Your task to perform on an android device: move a message to another label in the gmail app Image 0: 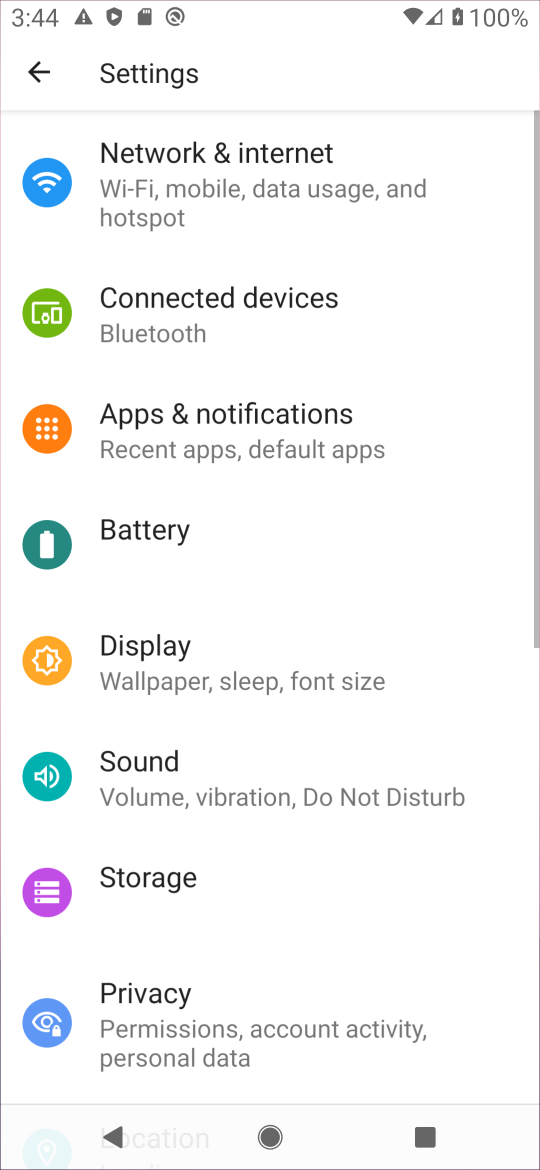
Step 0: press back button
Your task to perform on an android device: move a message to another label in the gmail app Image 1: 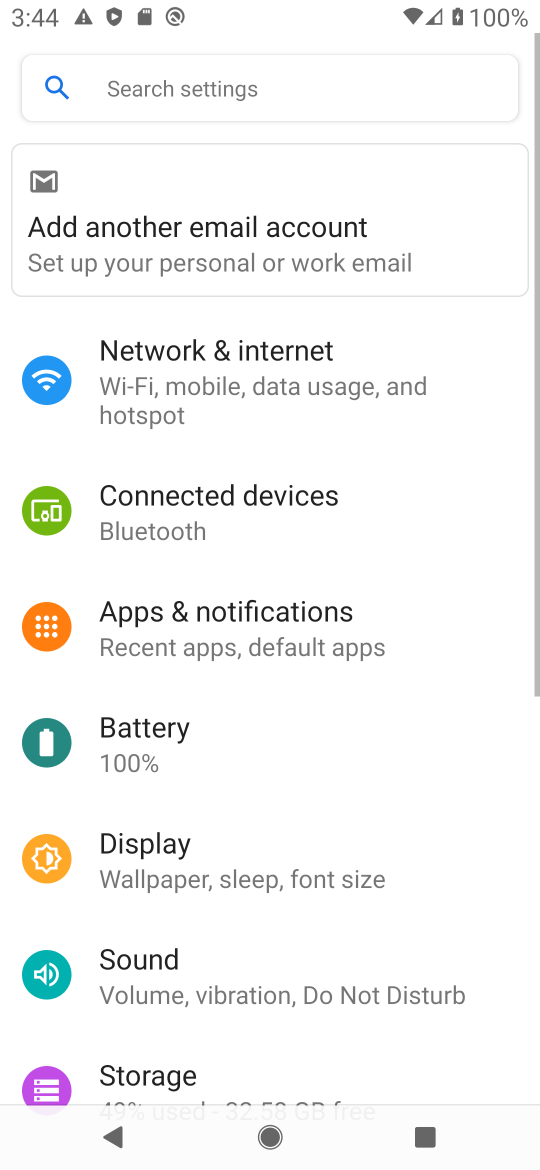
Step 1: press back button
Your task to perform on an android device: move a message to another label in the gmail app Image 2: 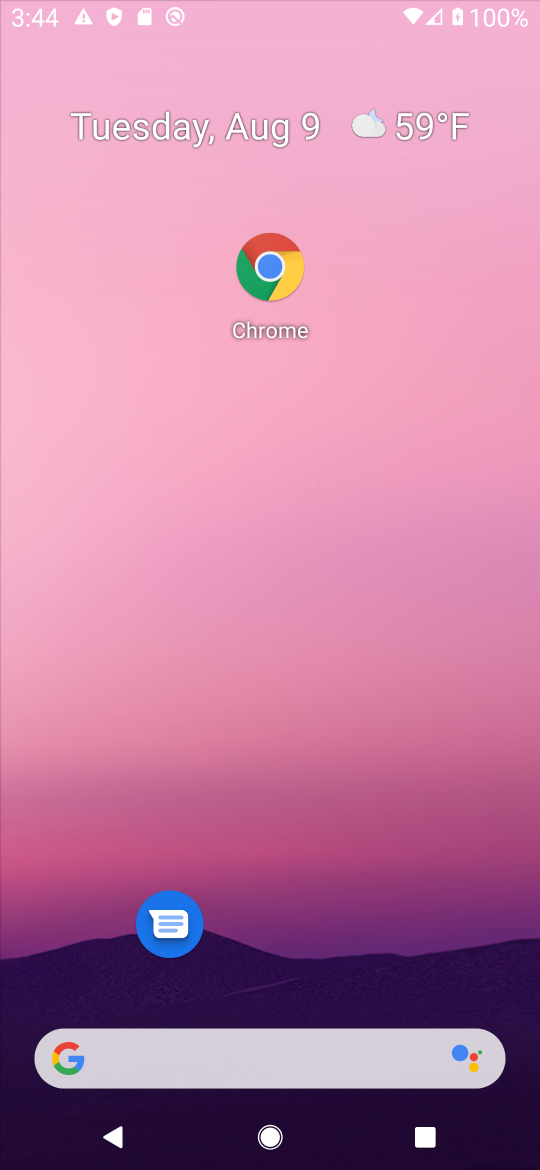
Step 2: press home button
Your task to perform on an android device: move a message to another label in the gmail app Image 3: 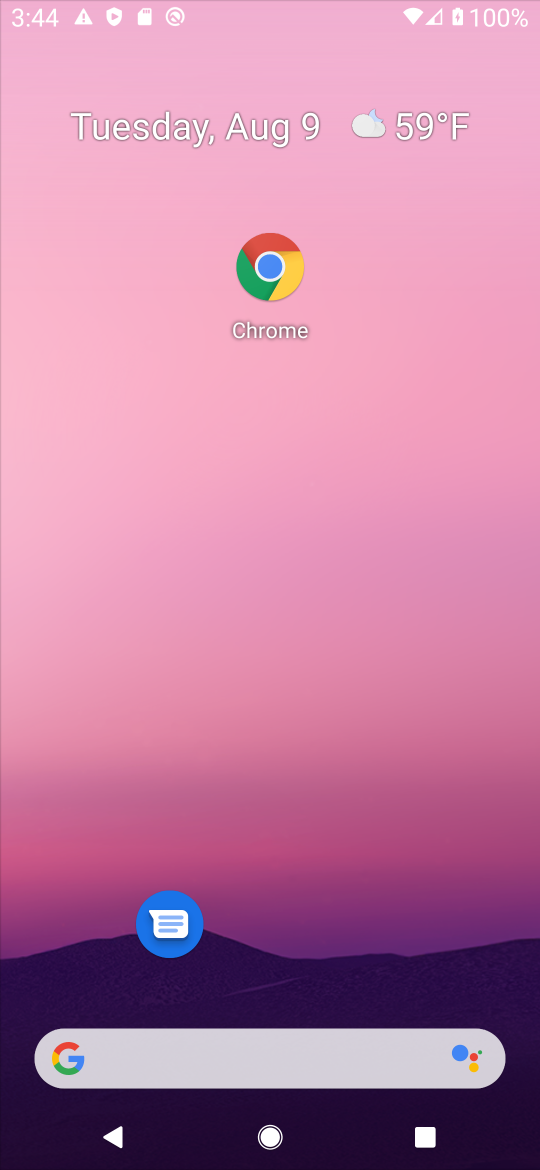
Step 3: click (93, 263)
Your task to perform on an android device: move a message to another label in the gmail app Image 4: 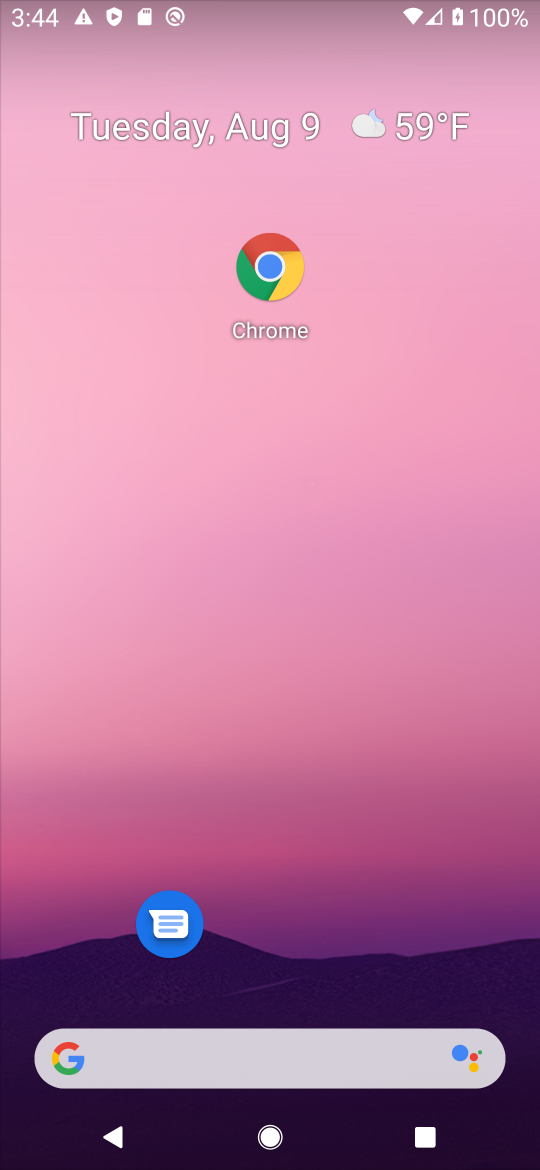
Step 4: drag from (274, 812) to (205, 144)
Your task to perform on an android device: move a message to another label in the gmail app Image 5: 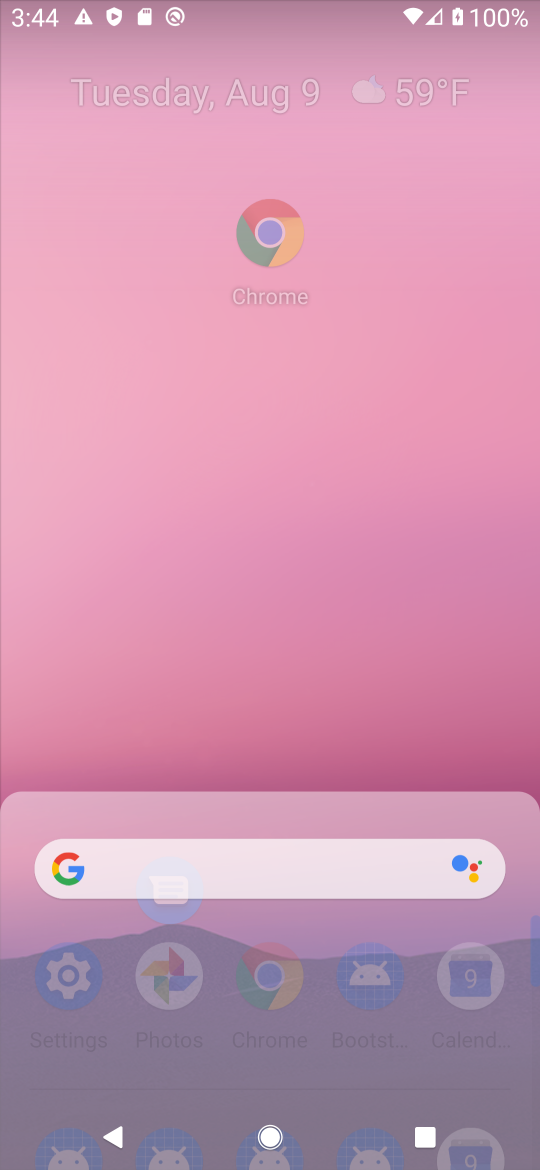
Step 5: drag from (153, 89) to (153, 28)
Your task to perform on an android device: move a message to another label in the gmail app Image 6: 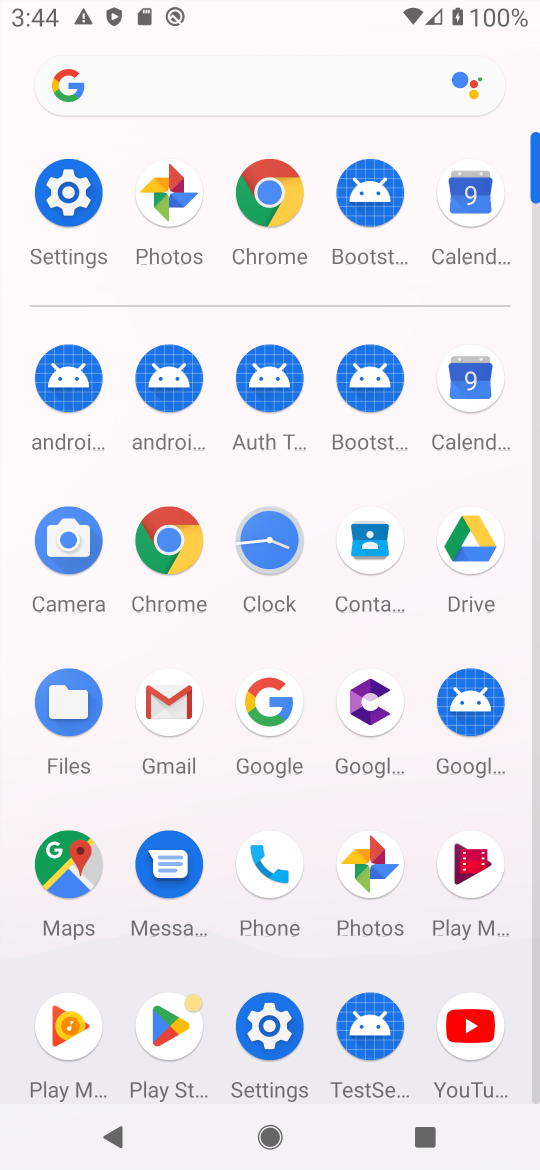
Step 6: click (172, 710)
Your task to perform on an android device: move a message to another label in the gmail app Image 7: 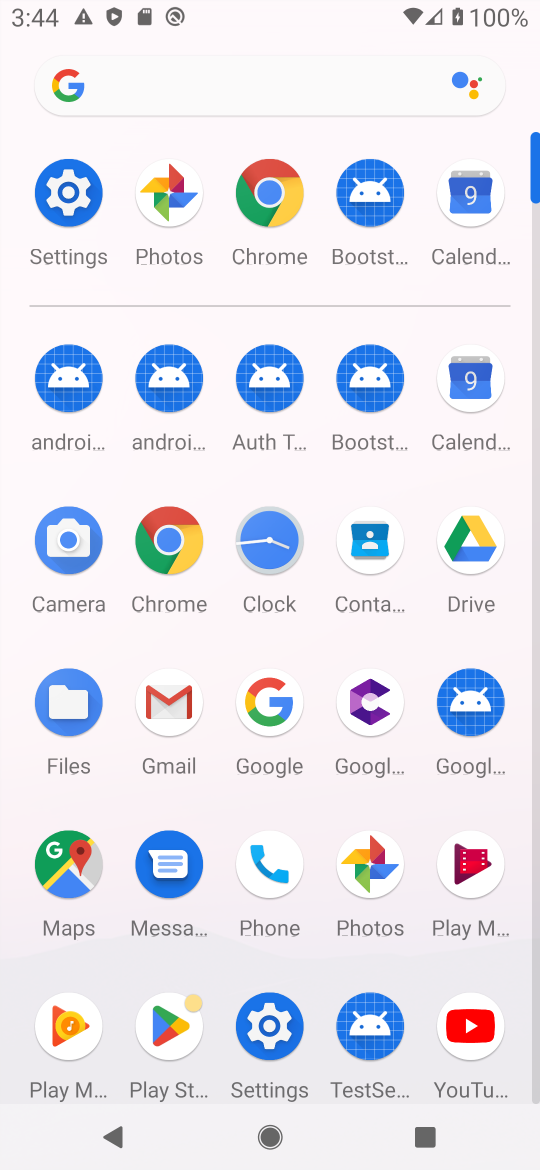
Step 7: click (174, 706)
Your task to perform on an android device: move a message to another label in the gmail app Image 8: 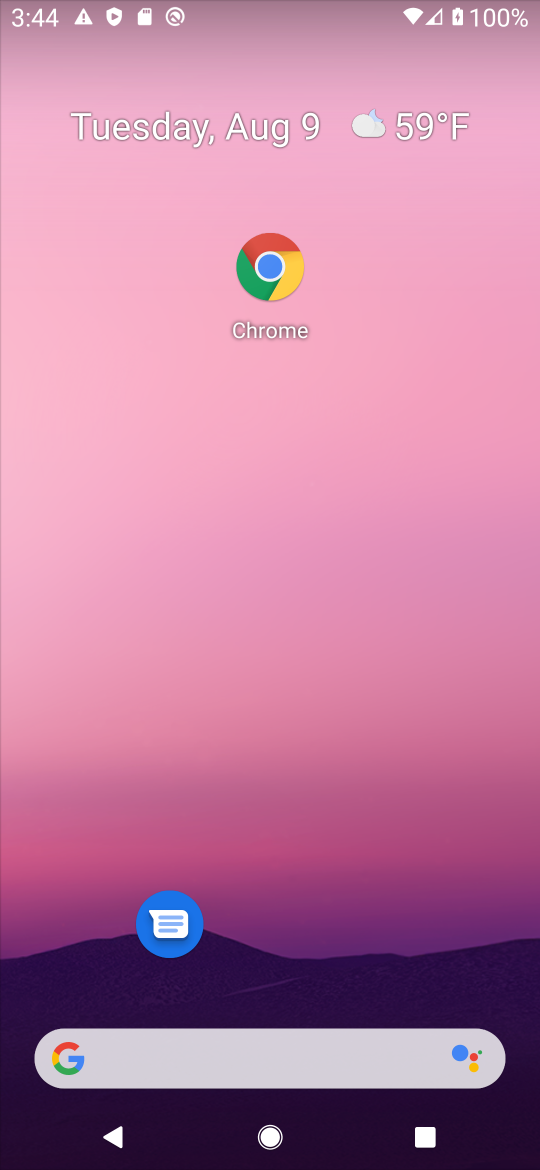
Step 8: drag from (302, 920) to (122, 230)
Your task to perform on an android device: move a message to another label in the gmail app Image 9: 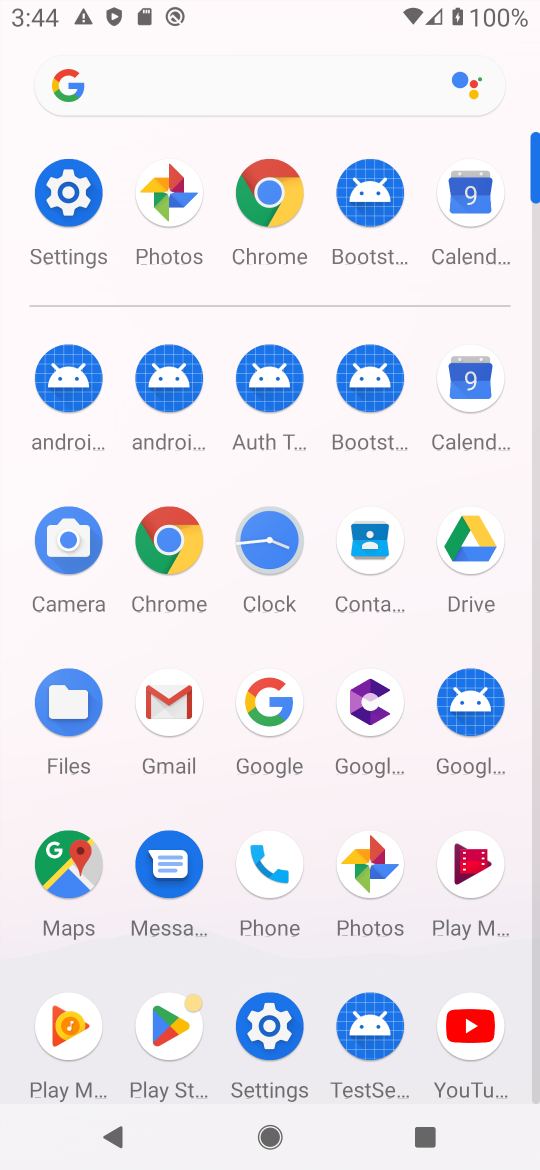
Step 9: click (180, 685)
Your task to perform on an android device: move a message to another label in the gmail app Image 10: 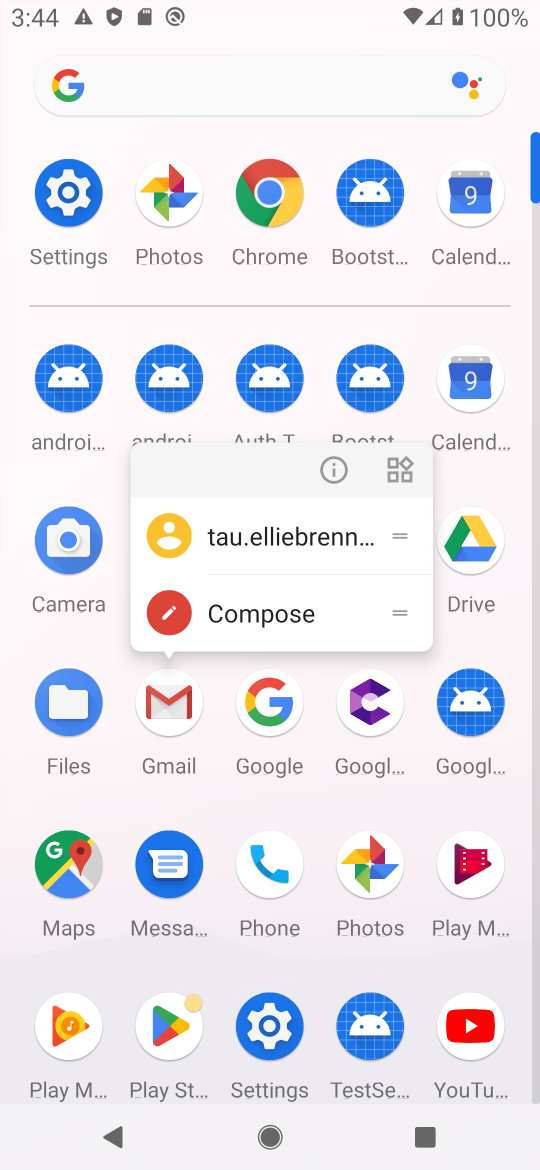
Step 10: click (153, 702)
Your task to perform on an android device: move a message to another label in the gmail app Image 11: 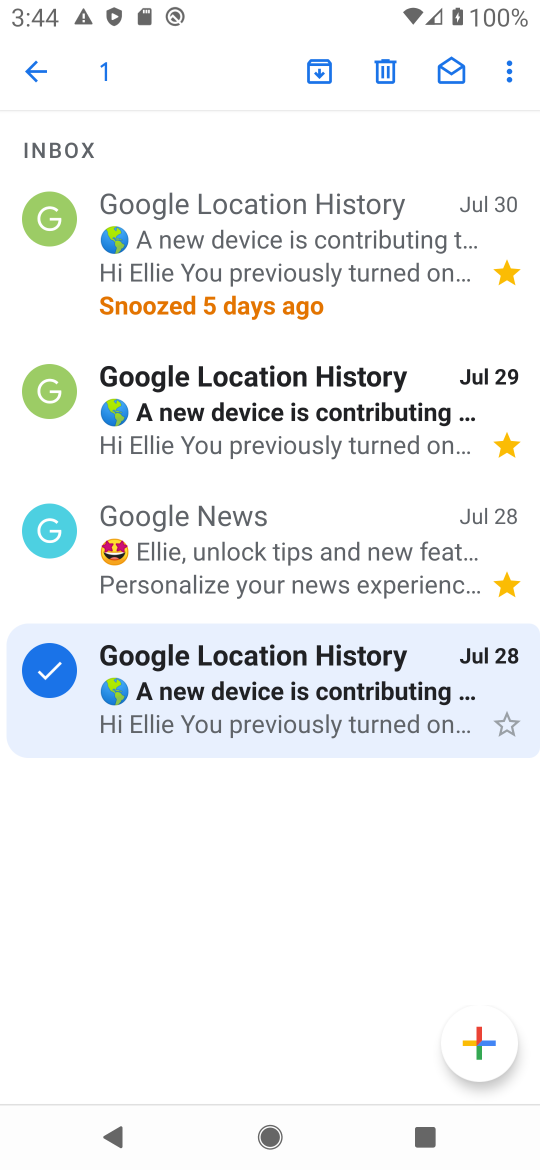
Step 11: click (508, 79)
Your task to perform on an android device: move a message to another label in the gmail app Image 12: 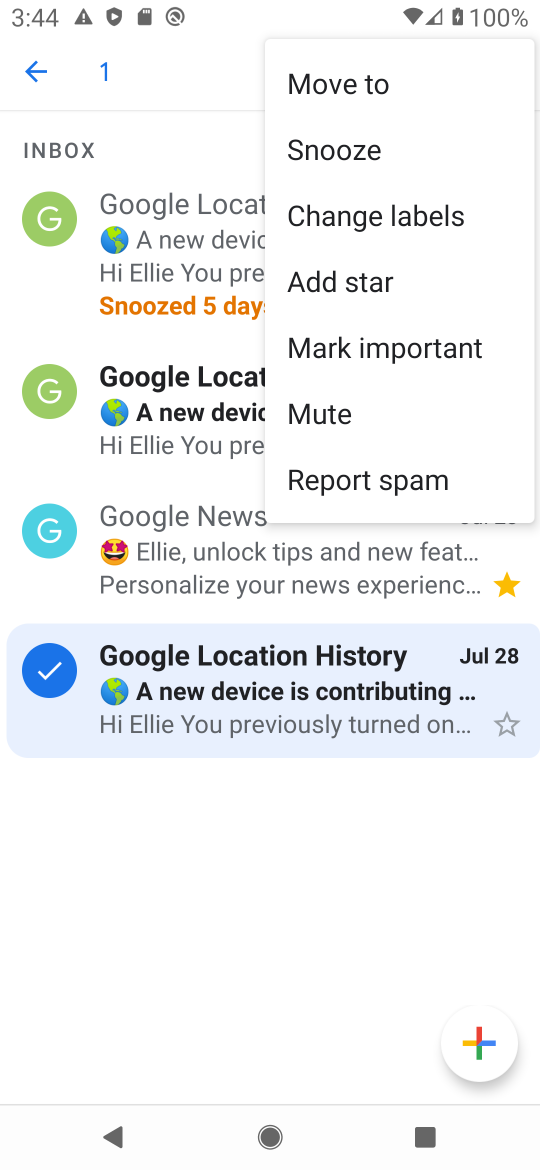
Step 12: click (316, 424)
Your task to perform on an android device: move a message to another label in the gmail app Image 13: 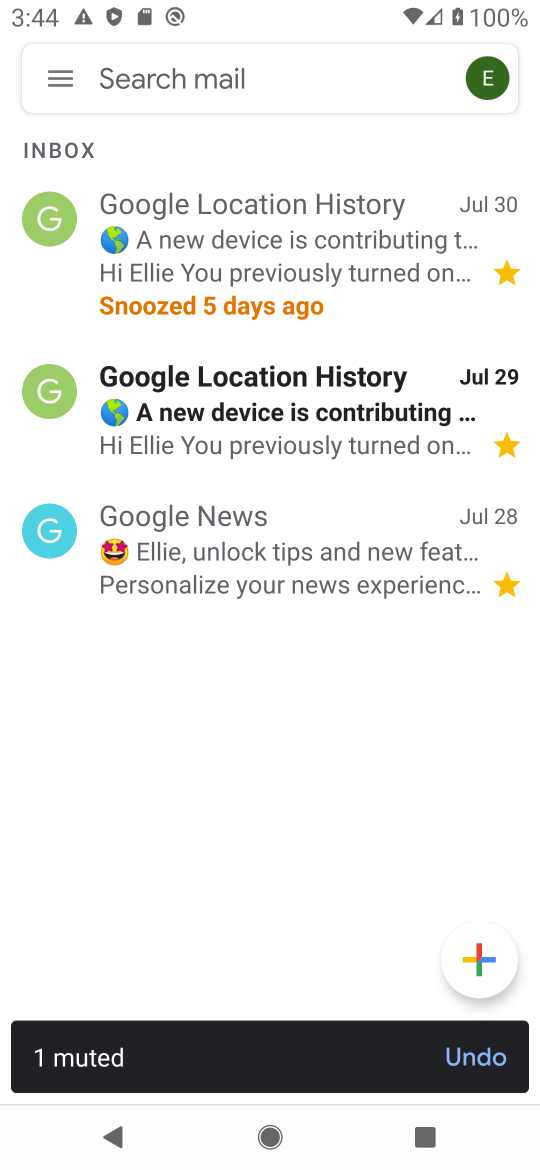
Step 13: task complete